Your task to perform on an android device: Search for pizza restaurants on Maps Image 0: 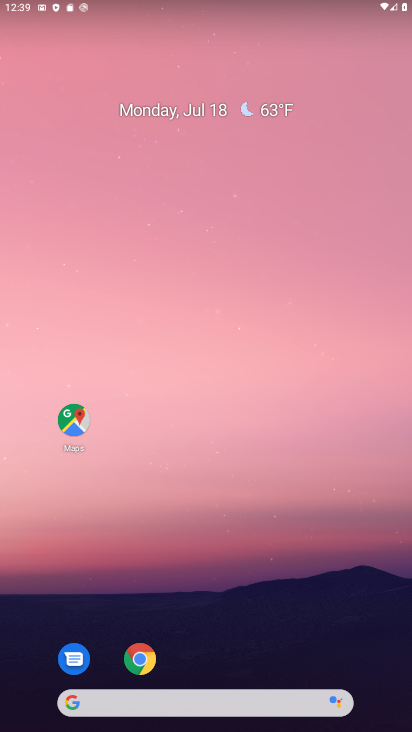
Step 0: drag from (233, 671) to (252, 92)
Your task to perform on an android device: Search for pizza restaurants on Maps Image 1: 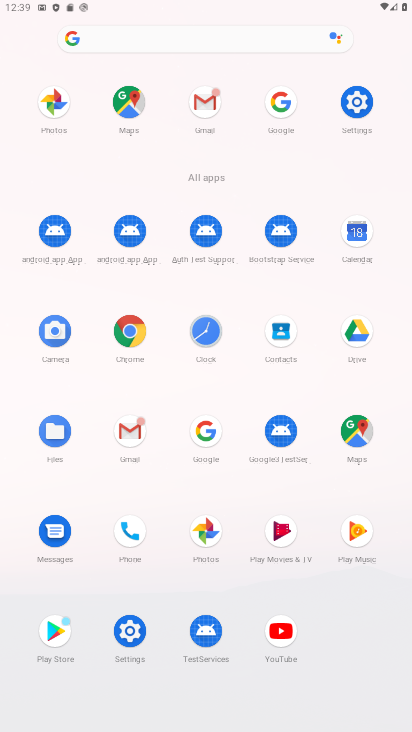
Step 1: click (352, 435)
Your task to perform on an android device: Search for pizza restaurants on Maps Image 2: 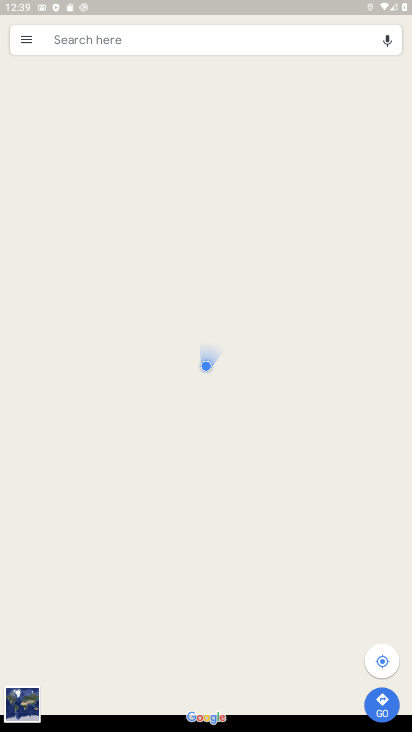
Step 2: click (95, 38)
Your task to perform on an android device: Search for pizza restaurants on Maps Image 3: 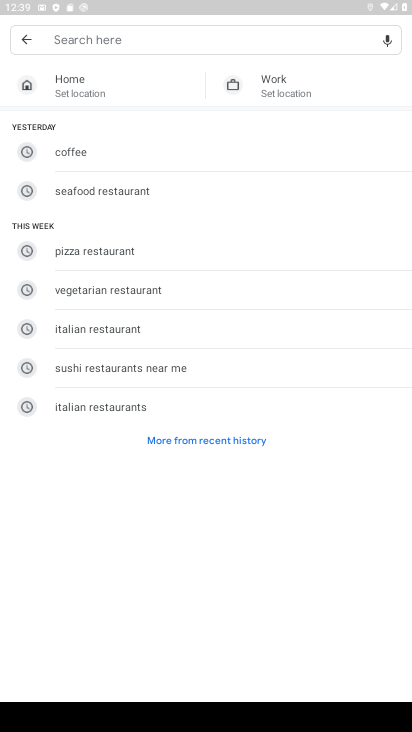
Step 3: click (86, 256)
Your task to perform on an android device: Search for pizza restaurants on Maps Image 4: 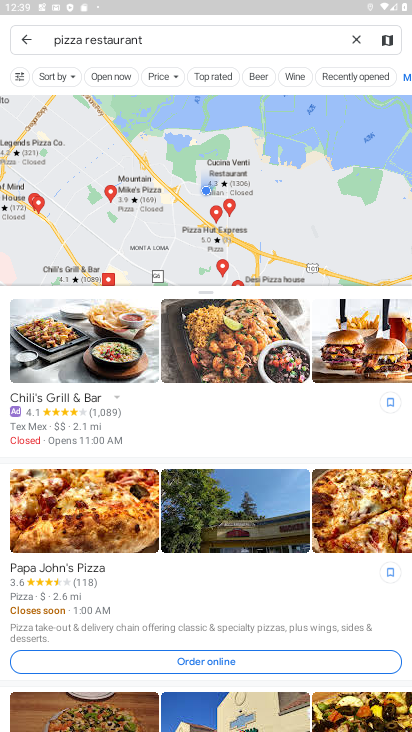
Step 4: task complete